Your task to perform on an android device: Open calendar and show me the first week of next month Image 0: 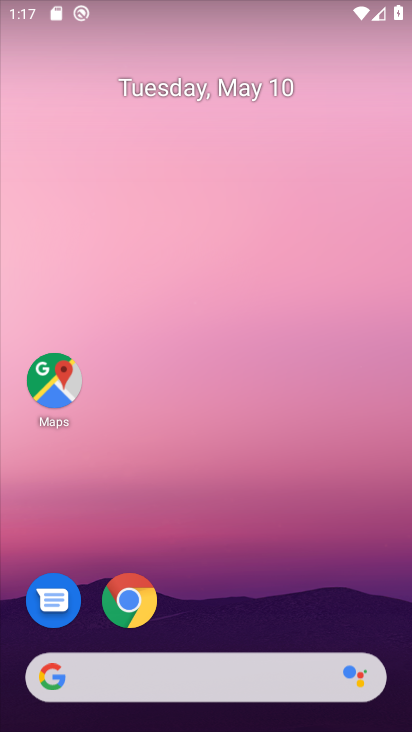
Step 0: drag from (226, 629) to (289, 27)
Your task to perform on an android device: Open calendar and show me the first week of next month Image 1: 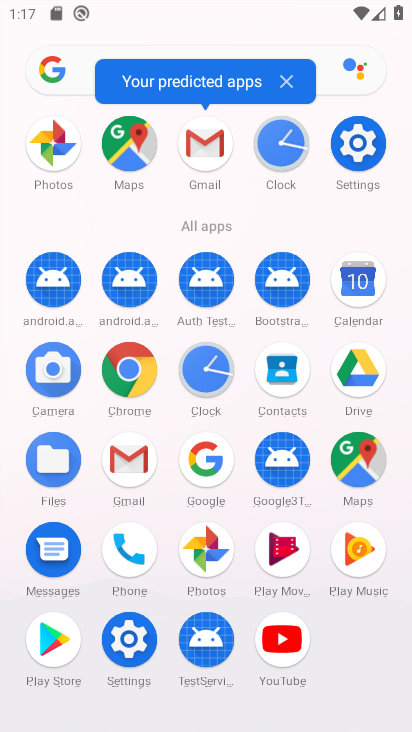
Step 1: click (352, 281)
Your task to perform on an android device: Open calendar and show me the first week of next month Image 2: 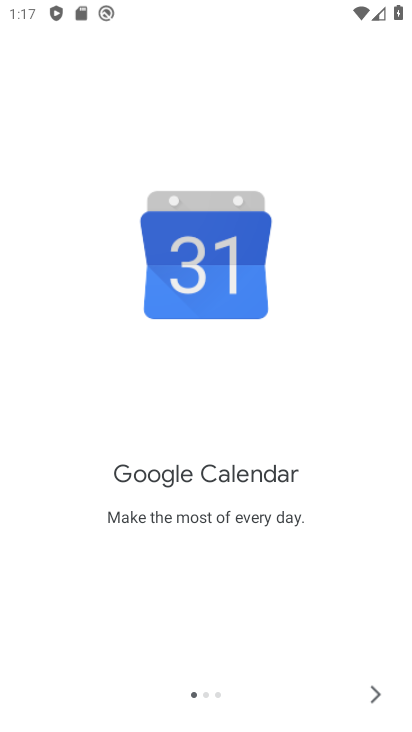
Step 2: click (376, 698)
Your task to perform on an android device: Open calendar and show me the first week of next month Image 3: 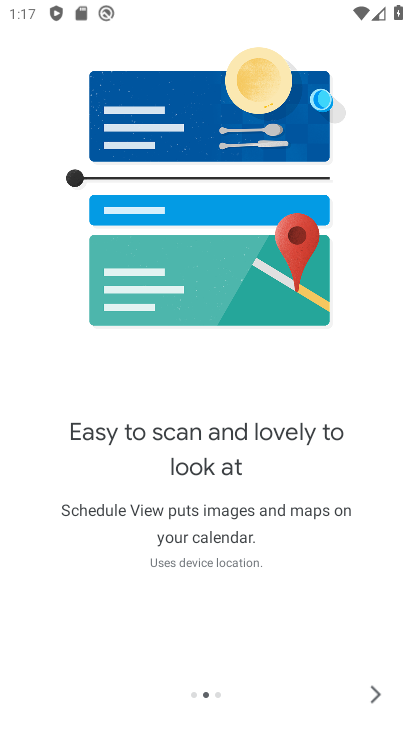
Step 3: click (372, 695)
Your task to perform on an android device: Open calendar and show me the first week of next month Image 4: 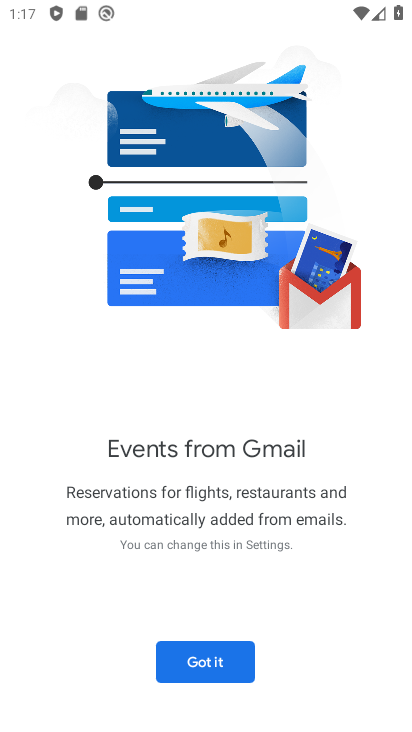
Step 4: click (233, 676)
Your task to perform on an android device: Open calendar and show me the first week of next month Image 5: 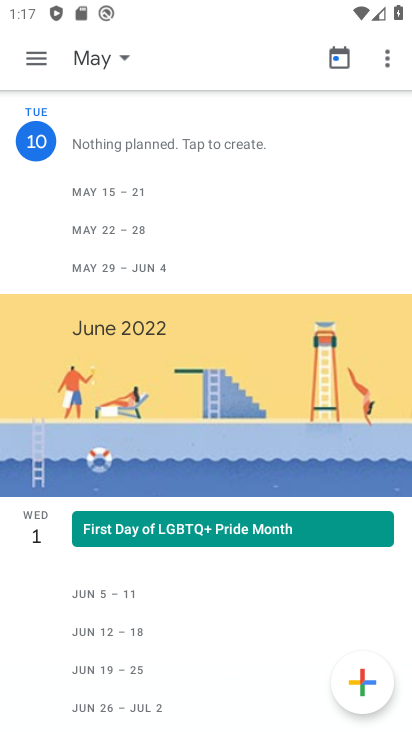
Step 5: click (35, 50)
Your task to perform on an android device: Open calendar and show me the first week of next month Image 6: 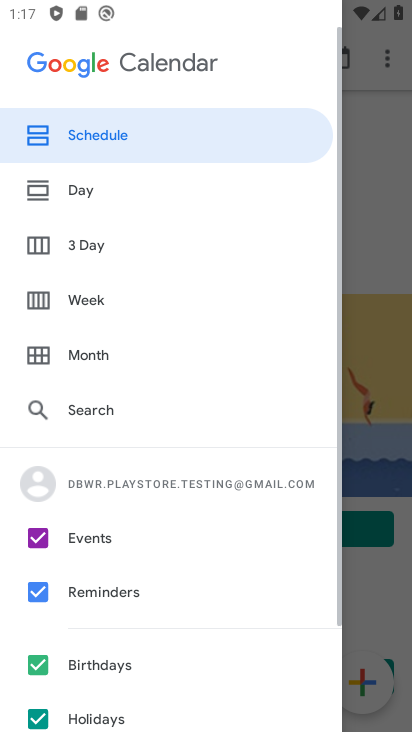
Step 6: click (105, 300)
Your task to perform on an android device: Open calendar and show me the first week of next month Image 7: 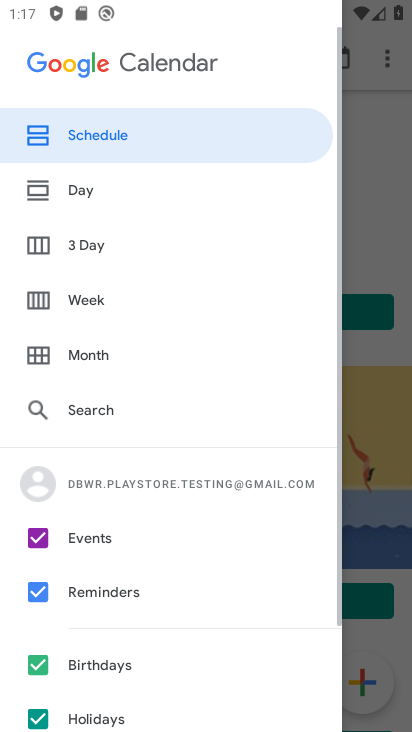
Step 7: click (113, 305)
Your task to perform on an android device: Open calendar and show me the first week of next month Image 8: 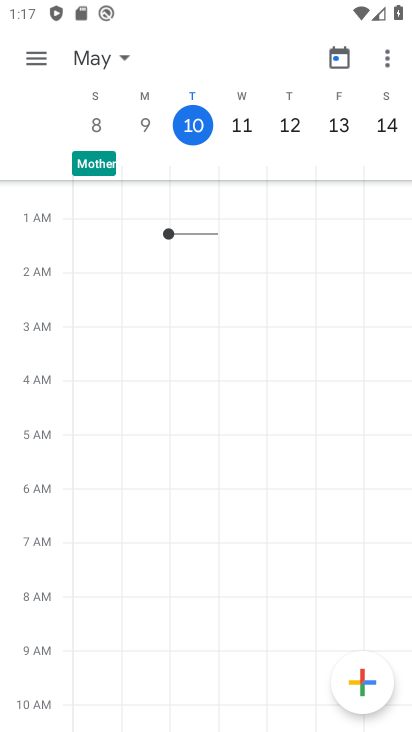
Step 8: task complete